Your task to perform on an android device: Search for seafood restaurants on Google Maps Image 0: 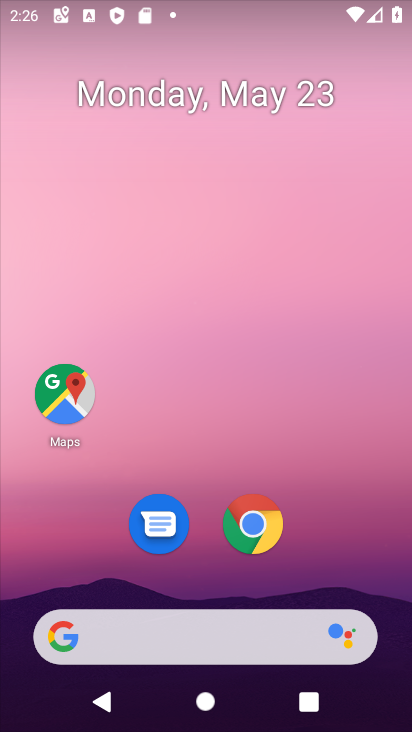
Step 0: click (62, 400)
Your task to perform on an android device: Search for seafood restaurants on Google Maps Image 1: 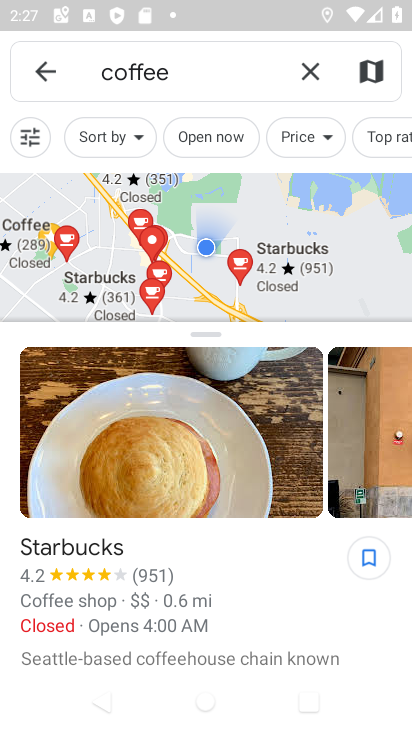
Step 1: click (309, 68)
Your task to perform on an android device: Search for seafood restaurants on Google Maps Image 2: 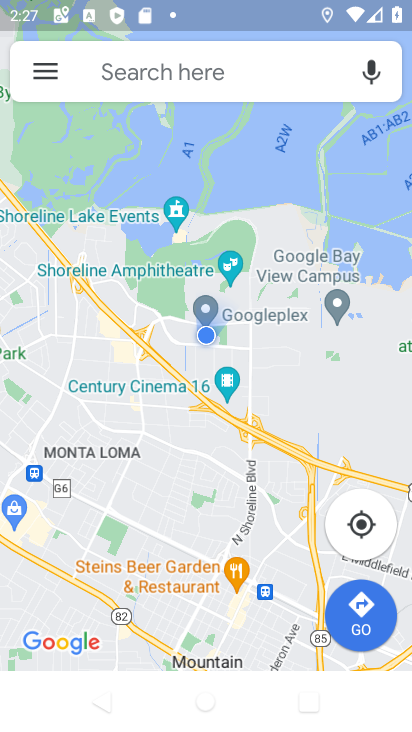
Step 2: click (205, 77)
Your task to perform on an android device: Search for seafood restaurants on Google Maps Image 3: 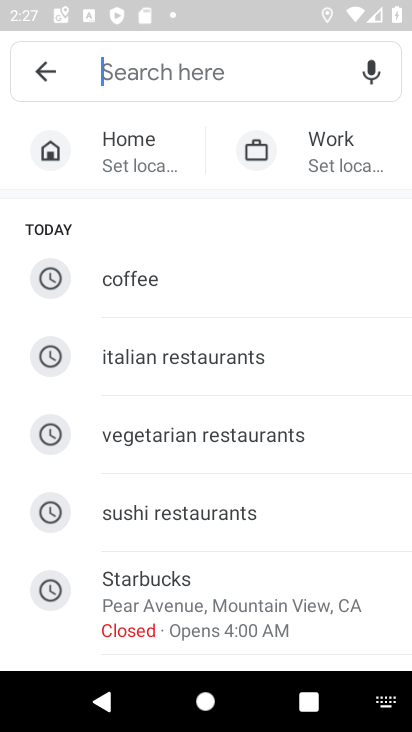
Step 3: drag from (200, 476) to (213, 218)
Your task to perform on an android device: Search for seafood restaurants on Google Maps Image 4: 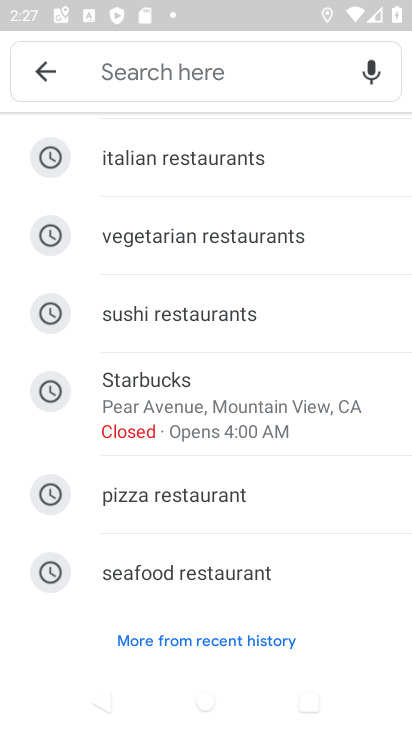
Step 4: click (178, 561)
Your task to perform on an android device: Search for seafood restaurants on Google Maps Image 5: 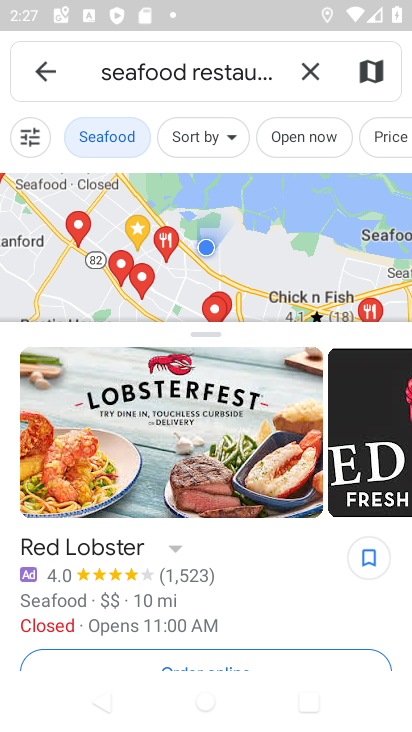
Step 5: task complete